Your task to perform on an android device: Open Google Chrome and open the bookmarks view Image 0: 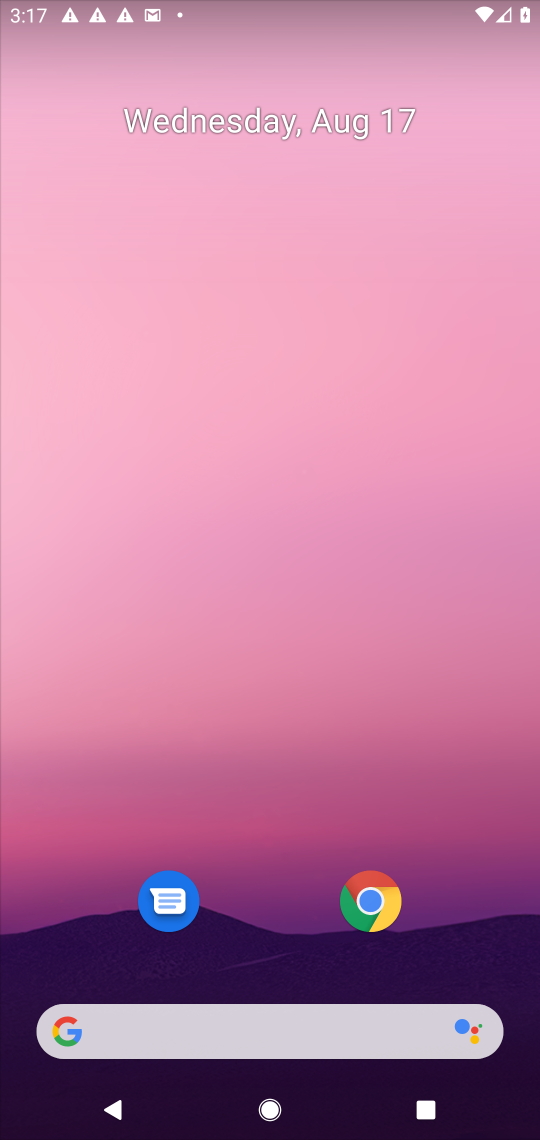
Step 0: click (360, 909)
Your task to perform on an android device: Open Google Chrome and open the bookmarks view Image 1: 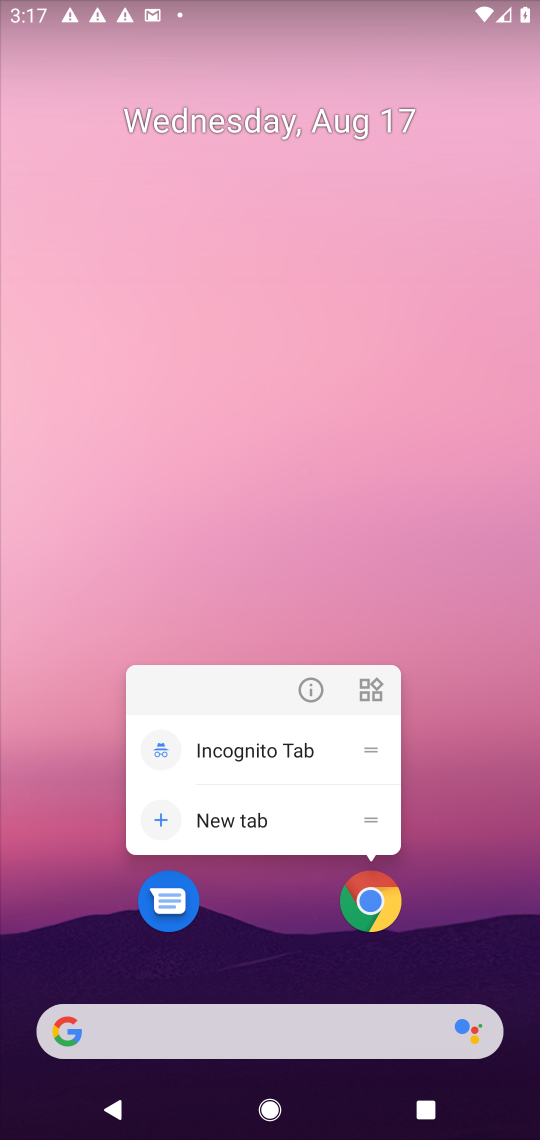
Step 1: click (369, 907)
Your task to perform on an android device: Open Google Chrome and open the bookmarks view Image 2: 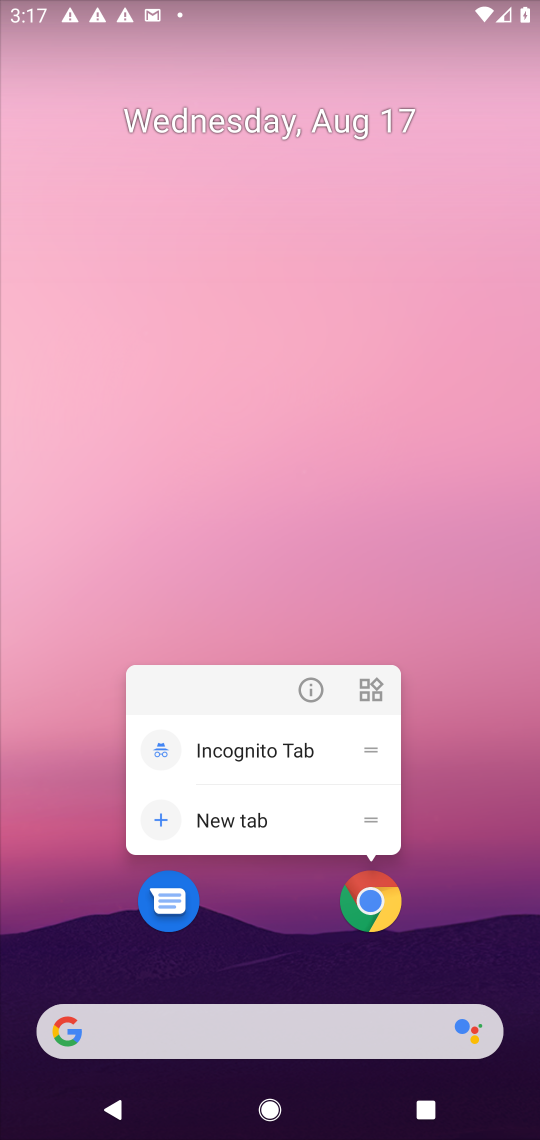
Step 2: click (369, 907)
Your task to perform on an android device: Open Google Chrome and open the bookmarks view Image 3: 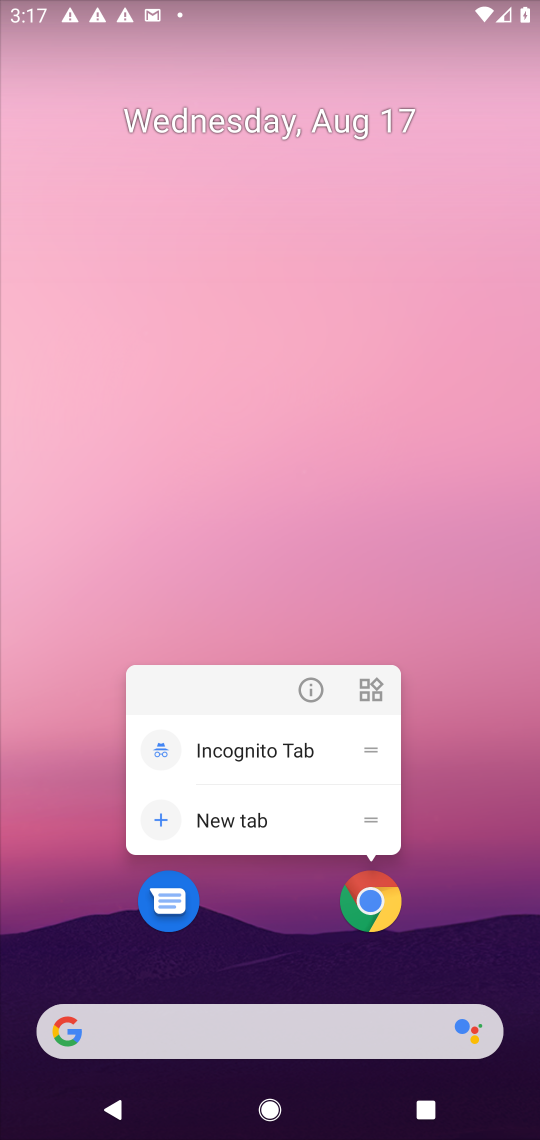
Step 3: click (369, 907)
Your task to perform on an android device: Open Google Chrome and open the bookmarks view Image 4: 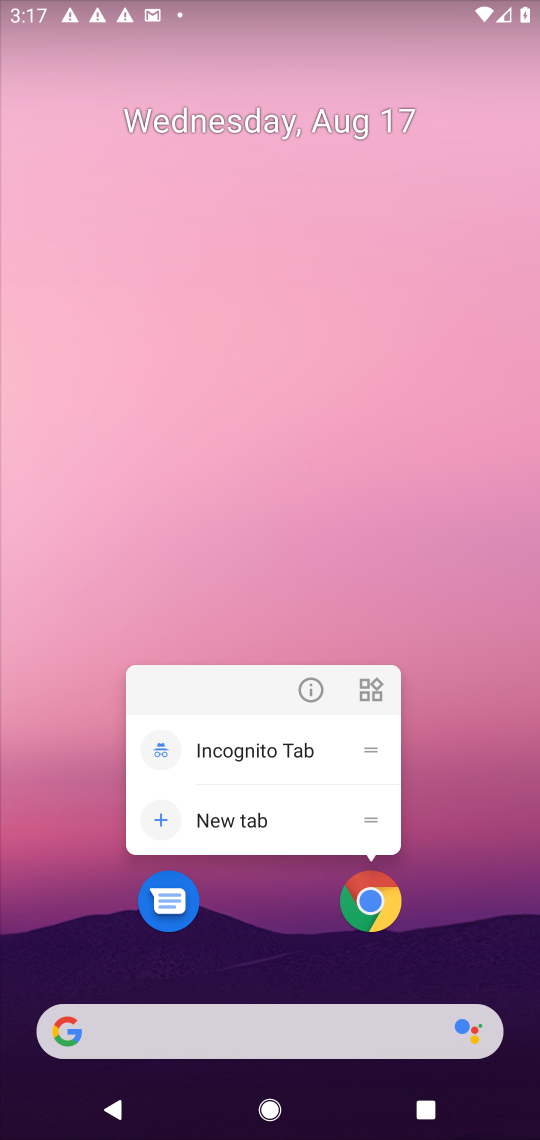
Step 4: click (369, 907)
Your task to perform on an android device: Open Google Chrome and open the bookmarks view Image 5: 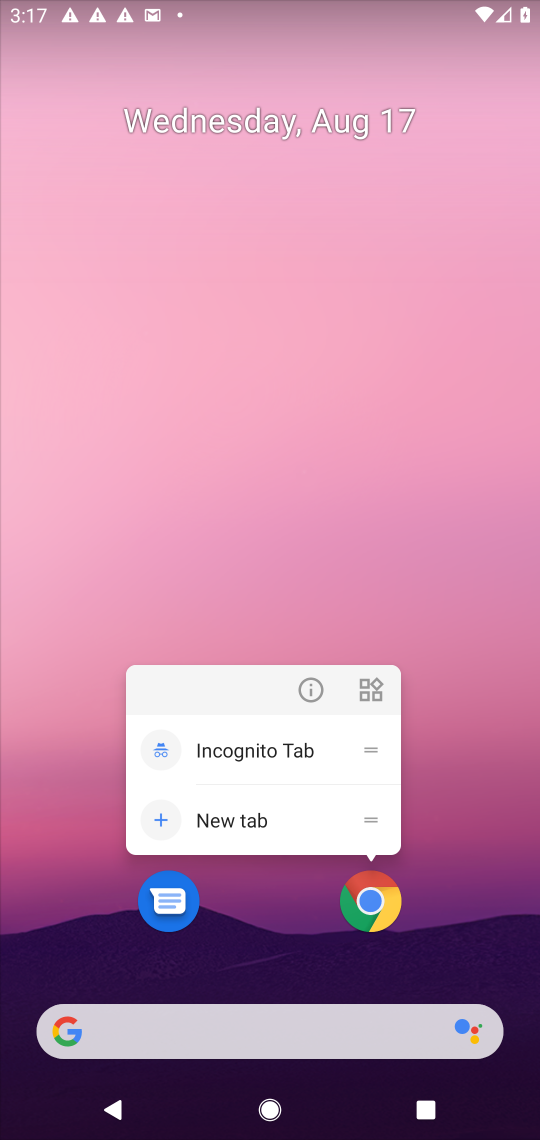
Step 5: click (369, 907)
Your task to perform on an android device: Open Google Chrome and open the bookmarks view Image 6: 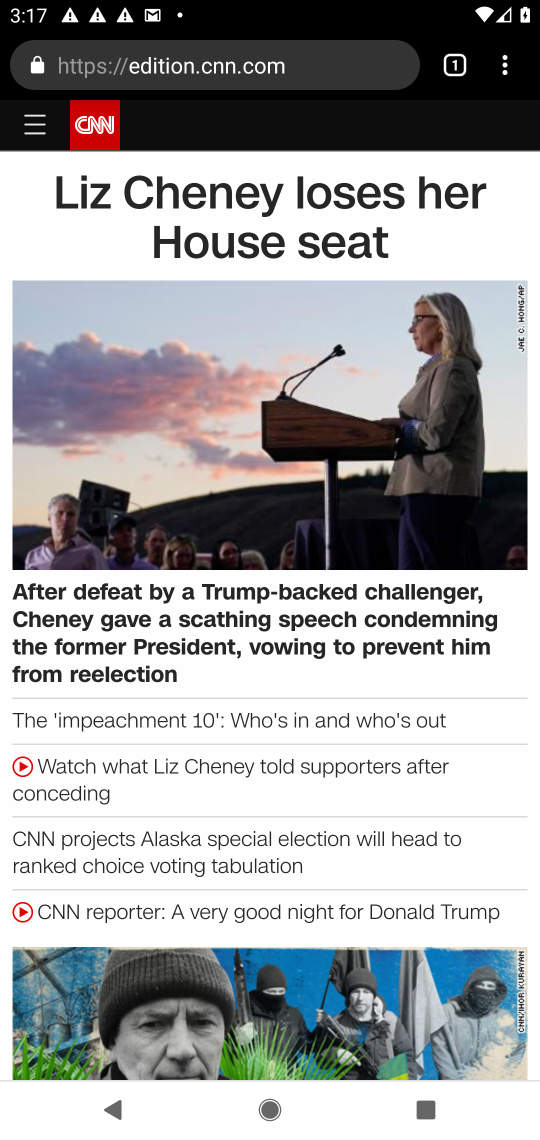
Step 6: click (501, 64)
Your task to perform on an android device: Open Google Chrome and open the bookmarks view Image 7: 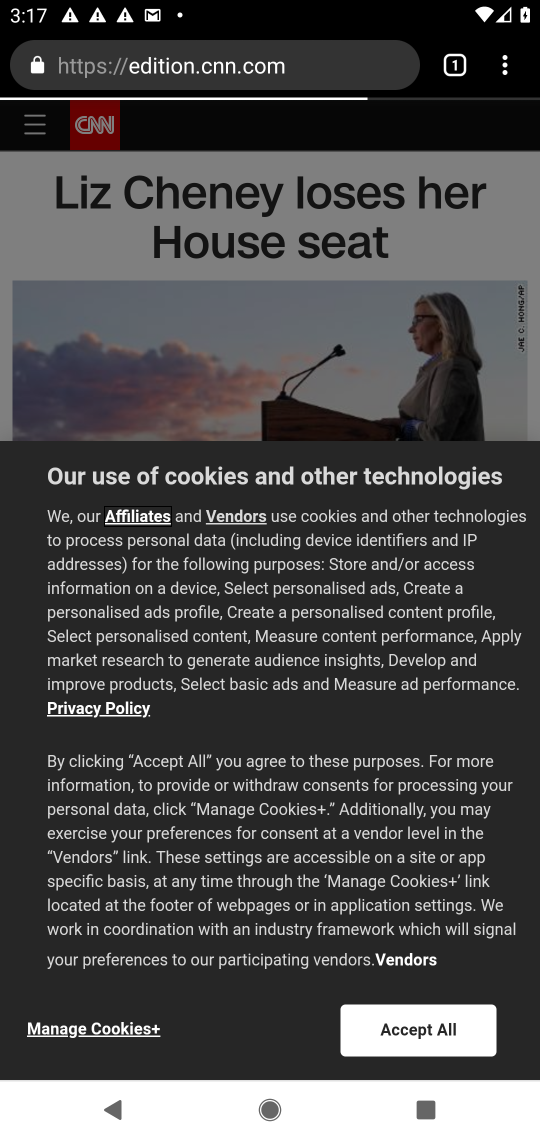
Step 7: click (508, 65)
Your task to perform on an android device: Open Google Chrome and open the bookmarks view Image 8: 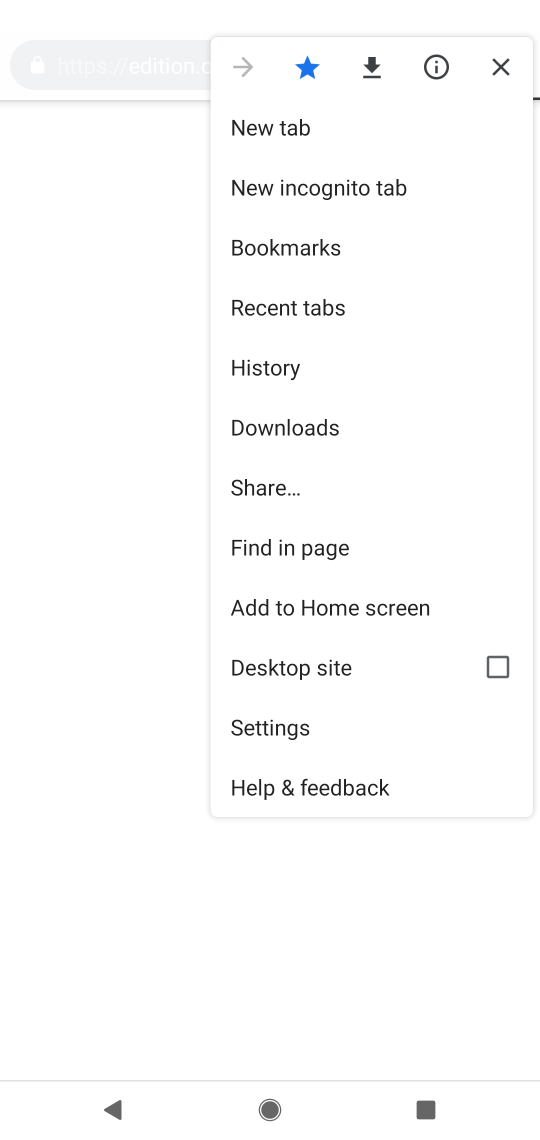
Step 8: click (273, 241)
Your task to perform on an android device: Open Google Chrome and open the bookmarks view Image 9: 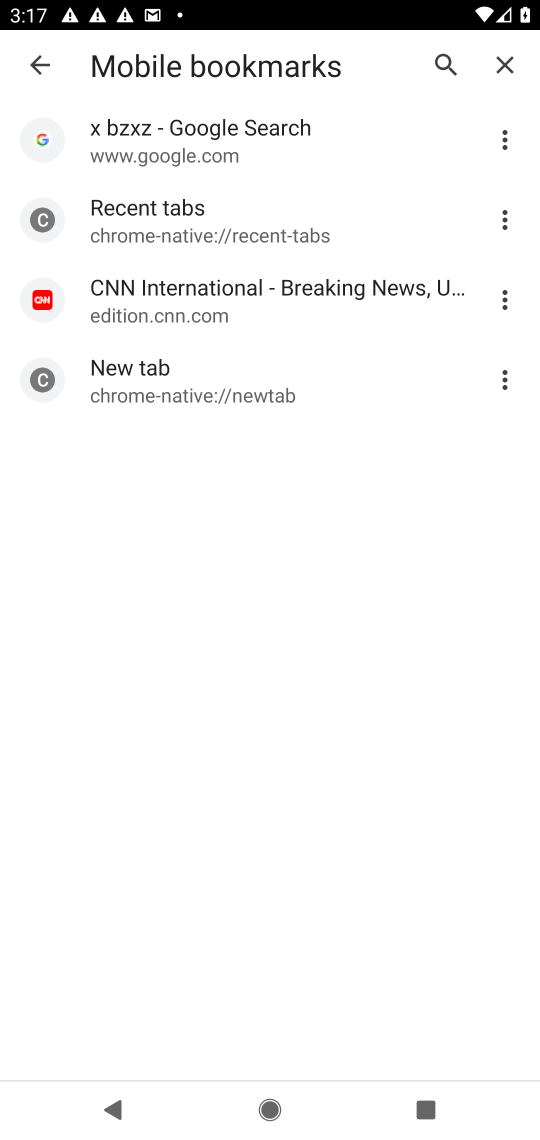
Step 9: task complete